Your task to perform on an android device: Open Chrome and go to settings Image 0: 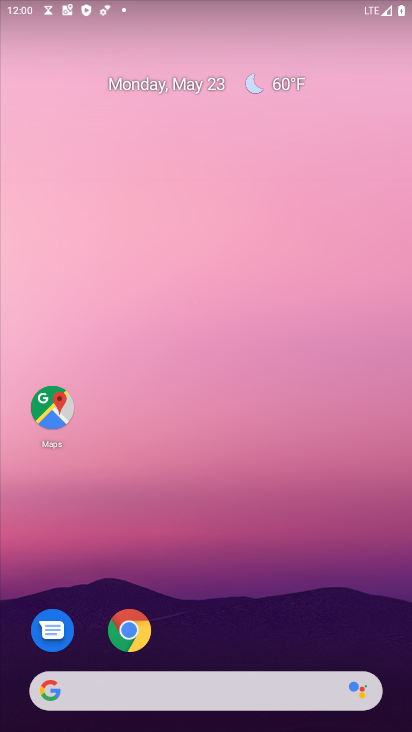
Step 0: click (129, 629)
Your task to perform on an android device: Open Chrome and go to settings Image 1: 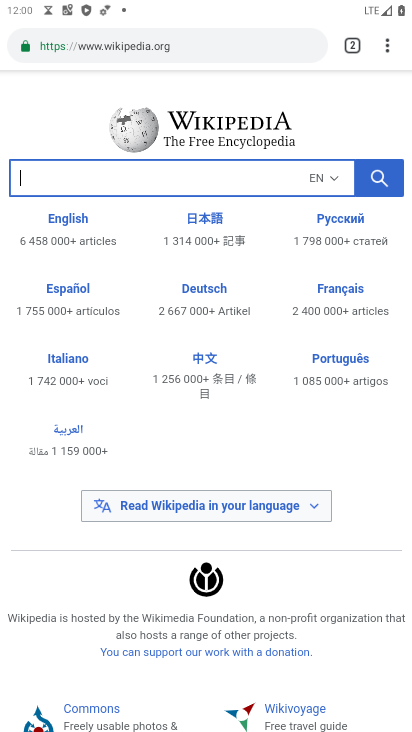
Step 1: click (388, 45)
Your task to perform on an android device: Open Chrome and go to settings Image 2: 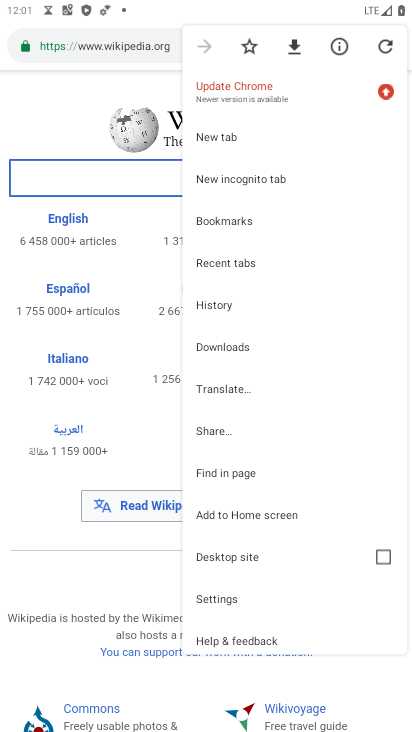
Step 2: click (224, 597)
Your task to perform on an android device: Open Chrome and go to settings Image 3: 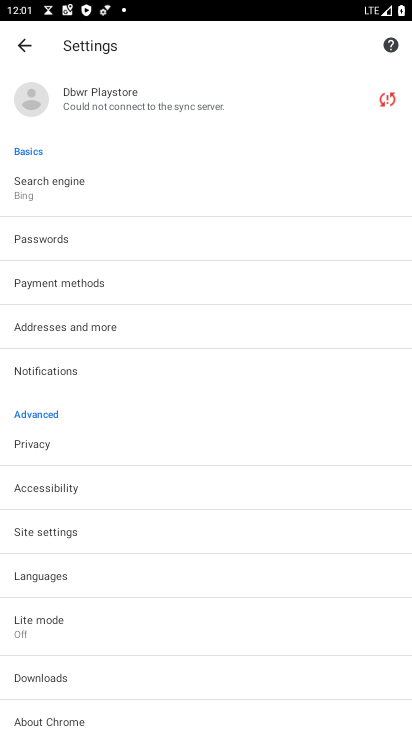
Step 3: task complete